Your task to perform on an android device: see tabs open on other devices in the chrome app Image 0: 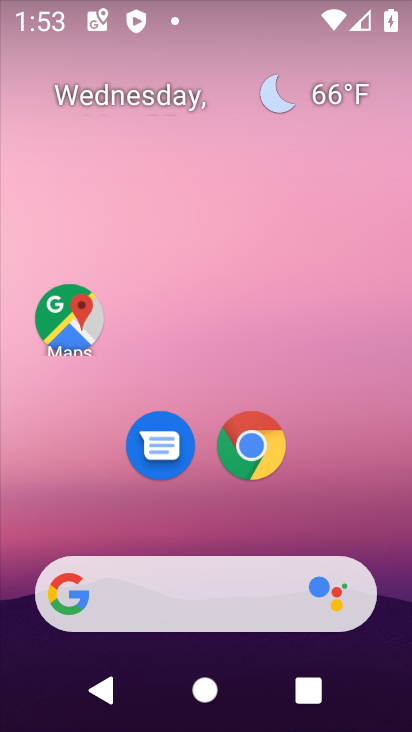
Step 0: press home button
Your task to perform on an android device: see tabs open on other devices in the chrome app Image 1: 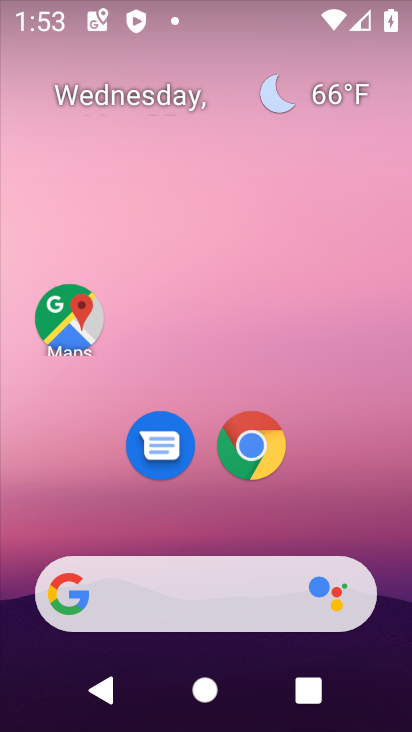
Step 1: click (252, 441)
Your task to perform on an android device: see tabs open on other devices in the chrome app Image 2: 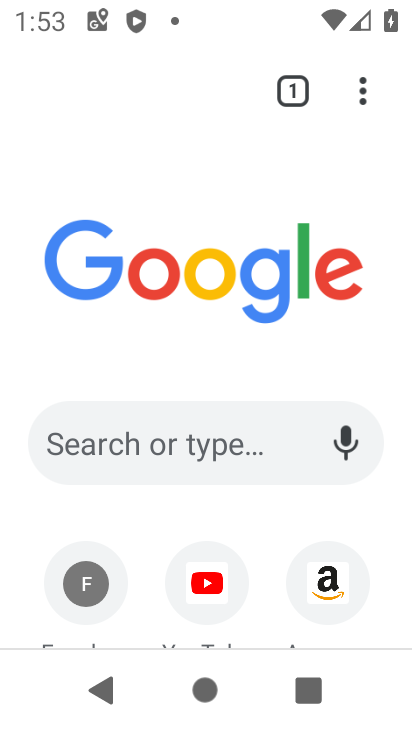
Step 2: click (288, 97)
Your task to perform on an android device: see tabs open on other devices in the chrome app Image 3: 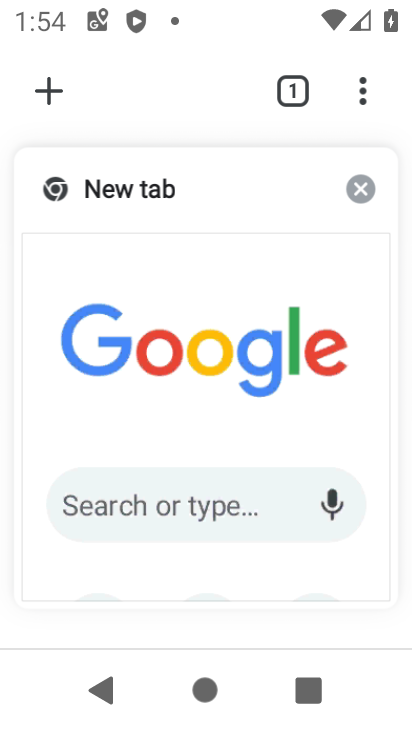
Step 3: click (60, 92)
Your task to perform on an android device: see tabs open on other devices in the chrome app Image 4: 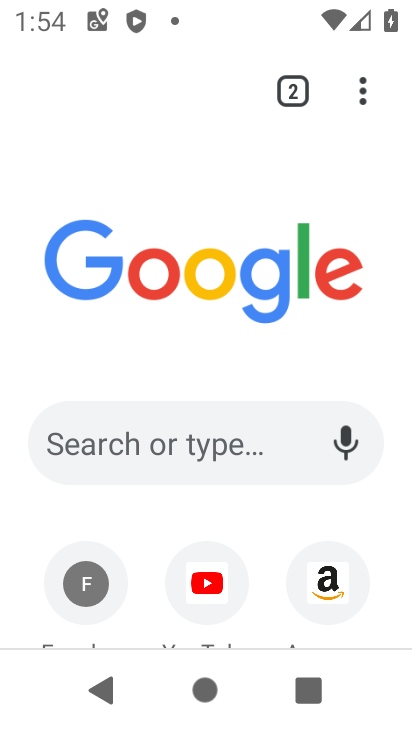
Step 4: click (298, 107)
Your task to perform on an android device: see tabs open on other devices in the chrome app Image 5: 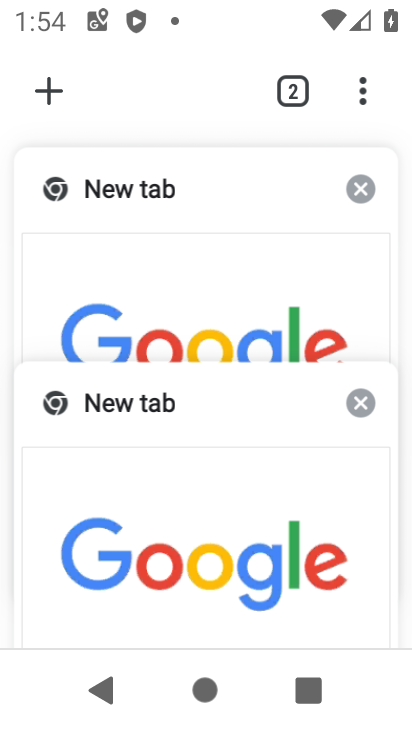
Step 5: task complete